Your task to perform on an android device: Open calendar and show me the first week of next month Image 0: 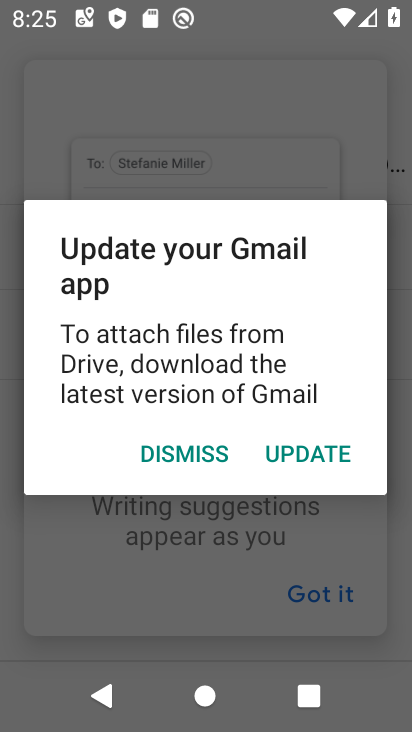
Step 0: press home button
Your task to perform on an android device: Open calendar and show me the first week of next month Image 1: 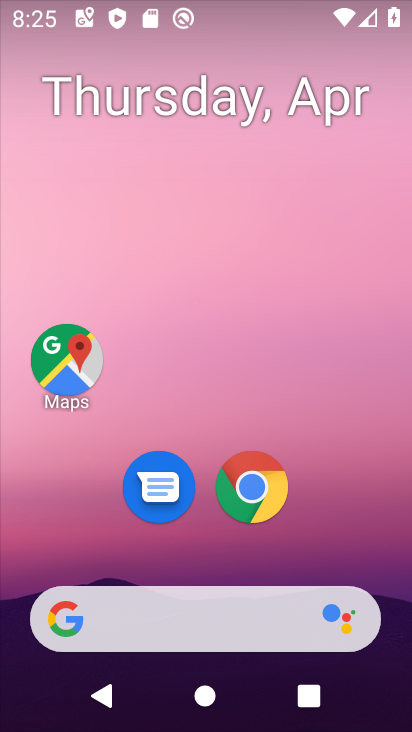
Step 1: drag from (211, 549) to (219, 67)
Your task to perform on an android device: Open calendar and show me the first week of next month Image 2: 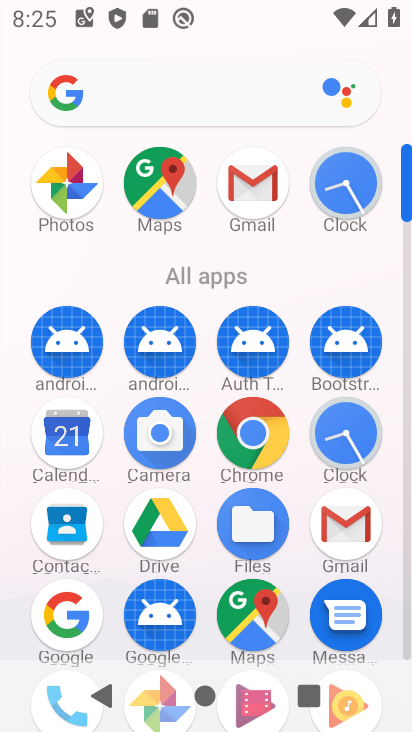
Step 2: click (70, 455)
Your task to perform on an android device: Open calendar and show me the first week of next month Image 3: 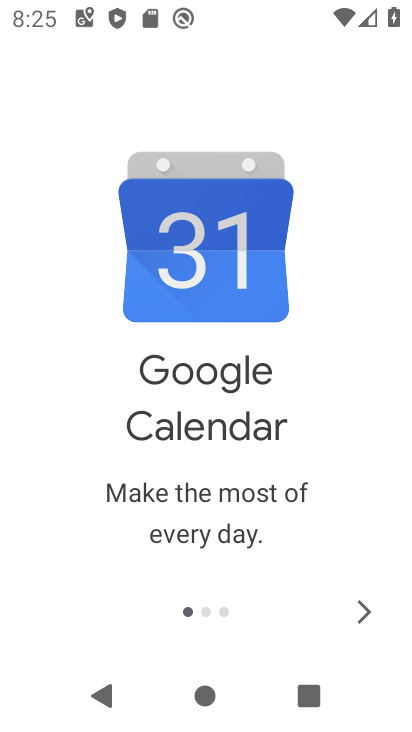
Step 3: click (371, 619)
Your task to perform on an android device: Open calendar and show me the first week of next month Image 4: 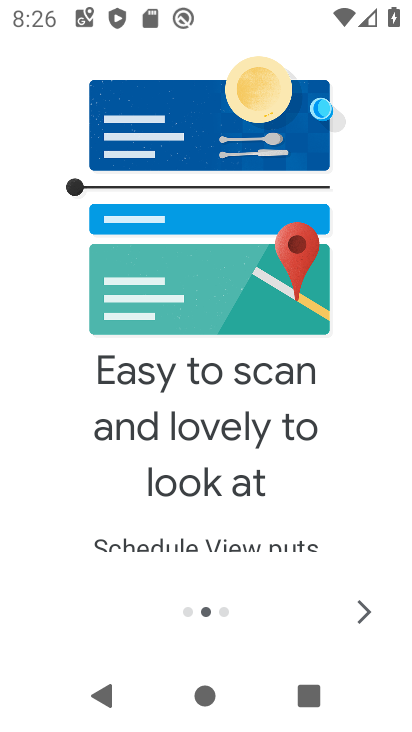
Step 4: click (371, 619)
Your task to perform on an android device: Open calendar and show me the first week of next month Image 5: 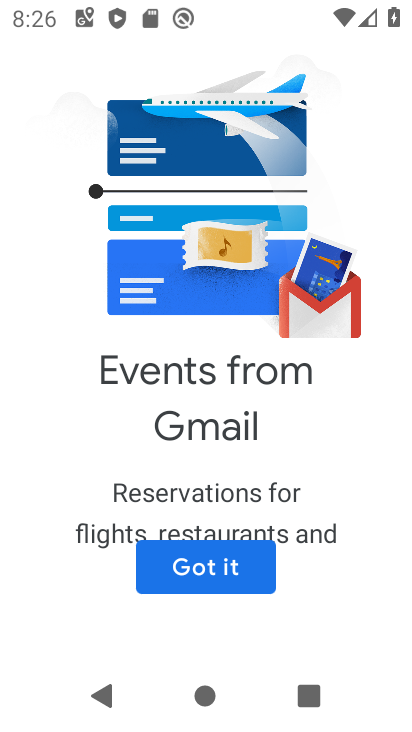
Step 5: click (240, 578)
Your task to perform on an android device: Open calendar and show me the first week of next month Image 6: 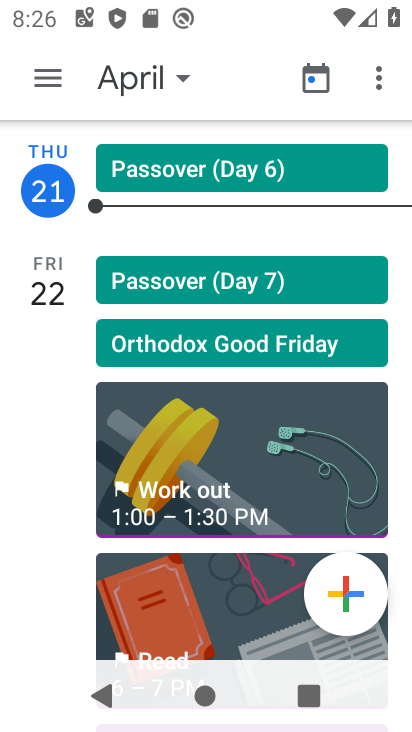
Step 6: click (140, 80)
Your task to perform on an android device: Open calendar and show me the first week of next month Image 7: 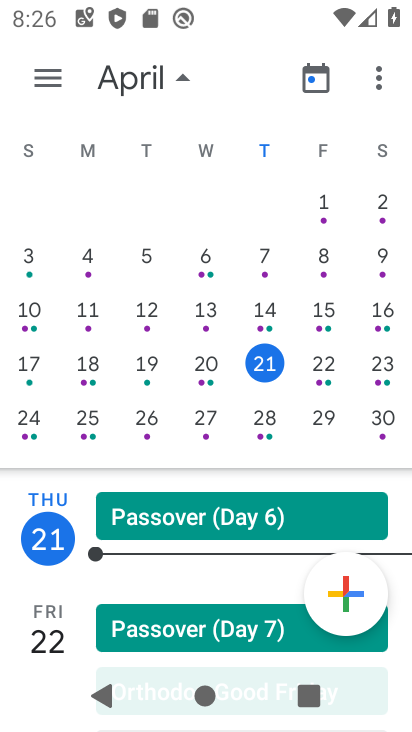
Step 7: drag from (343, 311) to (55, 267)
Your task to perform on an android device: Open calendar and show me the first week of next month Image 8: 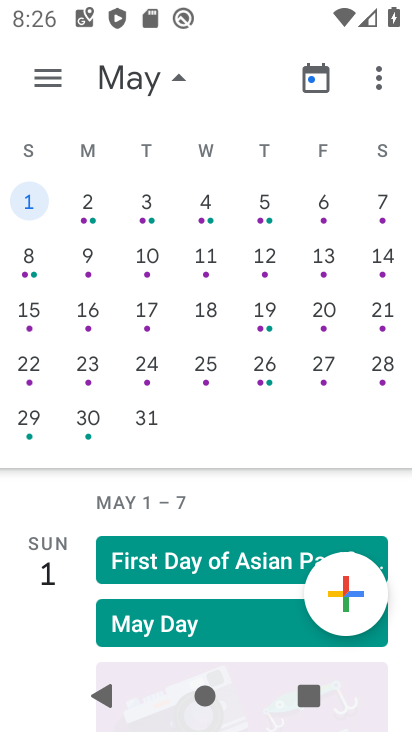
Step 8: click (84, 202)
Your task to perform on an android device: Open calendar and show me the first week of next month Image 9: 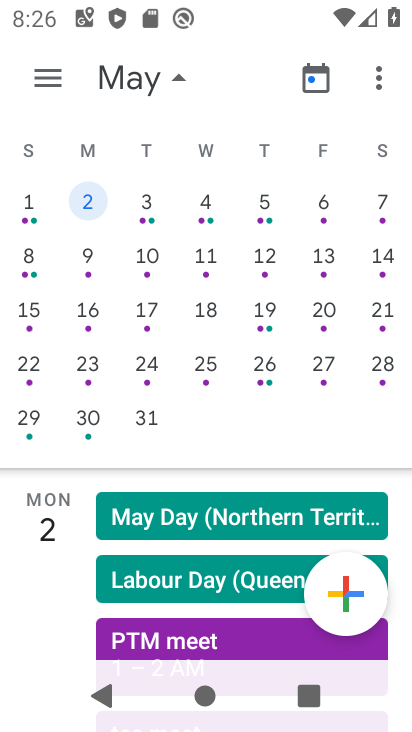
Step 9: task complete